Your task to perform on an android device: turn on data saver in the chrome app Image 0: 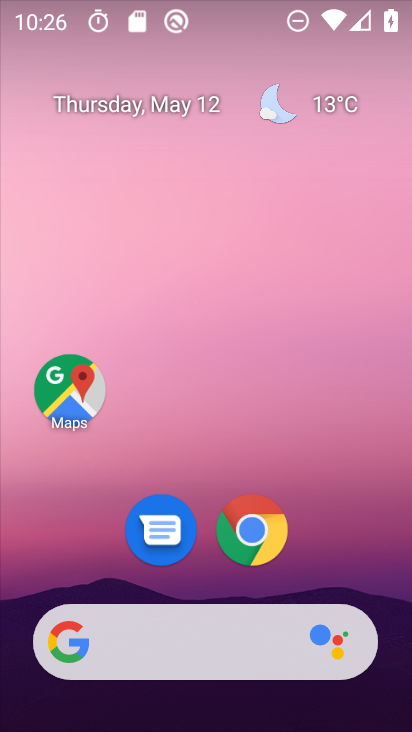
Step 0: click (274, 536)
Your task to perform on an android device: turn on data saver in the chrome app Image 1: 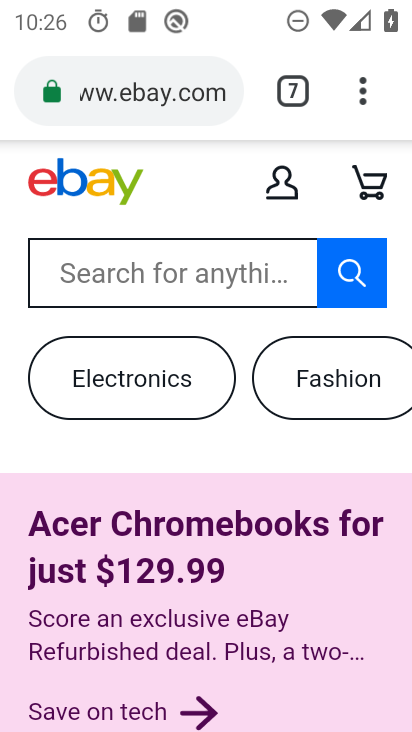
Step 1: click (356, 83)
Your task to perform on an android device: turn on data saver in the chrome app Image 2: 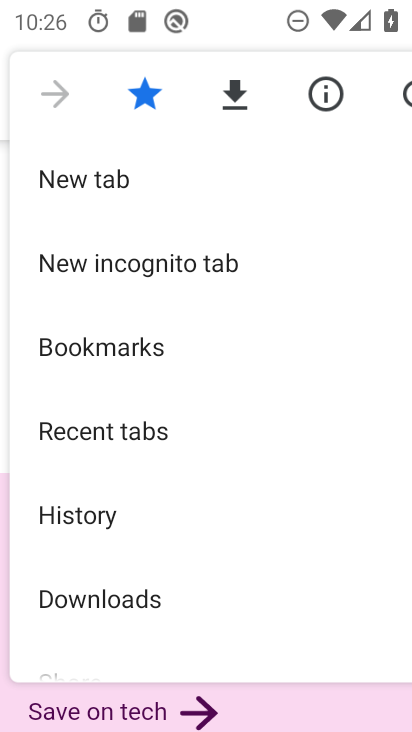
Step 2: drag from (278, 536) to (324, 178)
Your task to perform on an android device: turn on data saver in the chrome app Image 3: 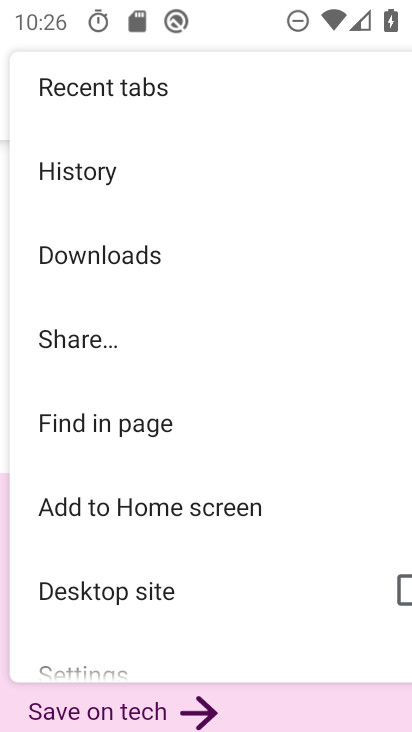
Step 3: drag from (239, 567) to (294, 160)
Your task to perform on an android device: turn on data saver in the chrome app Image 4: 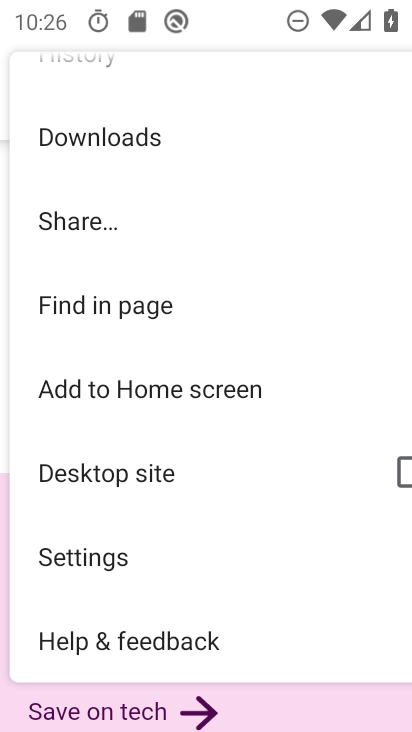
Step 4: click (143, 553)
Your task to perform on an android device: turn on data saver in the chrome app Image 5: 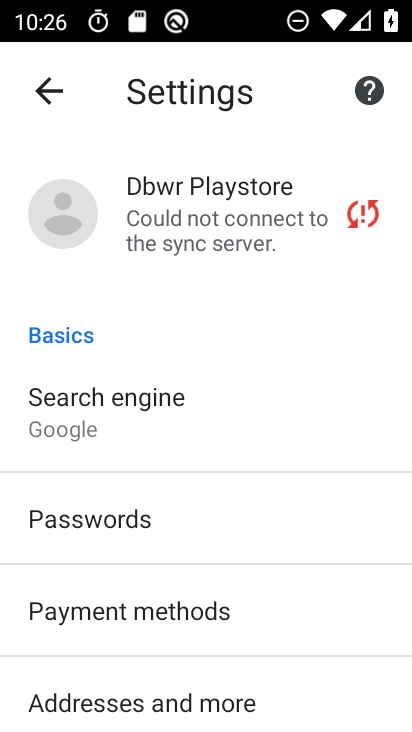
Step 5: drag from (247, 600) to (251, 268)
Your task to perform on an android device: turn on data saver in the chrome app Image 6: 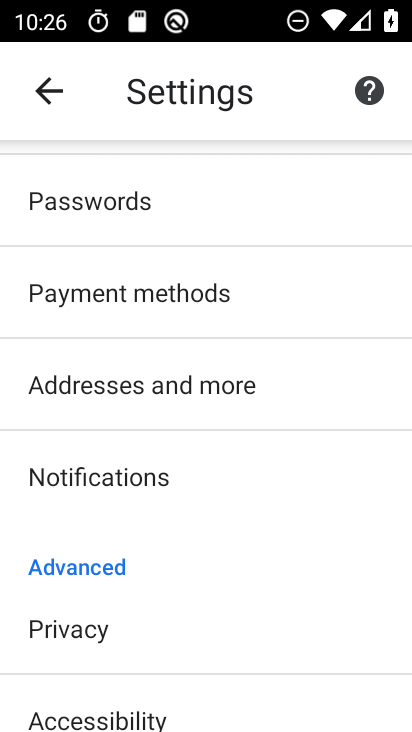
Step 6: drag from (216, 529) to (256, 164)
Your task to perform on an android device: turn on data saver in the chrome app Image 7: 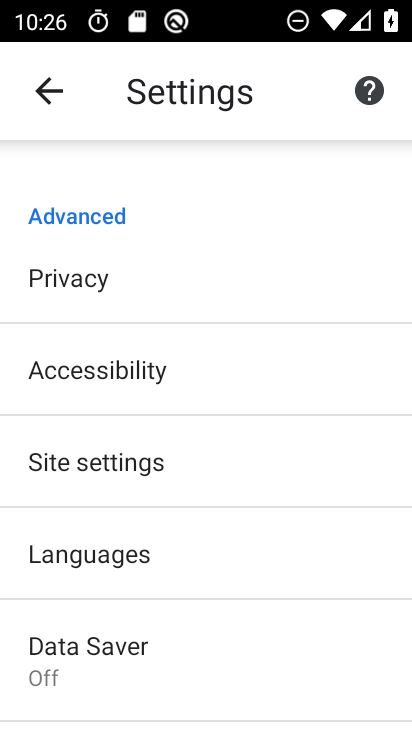
Step 7: click (123, 654)
Your task to perform on an android device: turn on data saver in the chrome app Image 8: 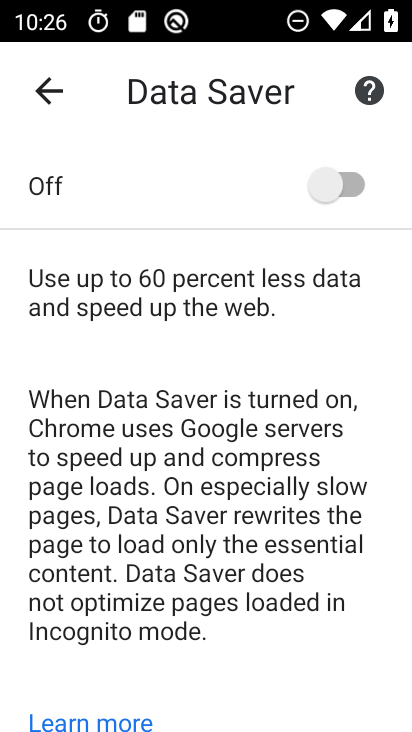
Step 8: click (339, 190)
Your task to perform on an android device: turn on data saver in the chrome app Image 9: 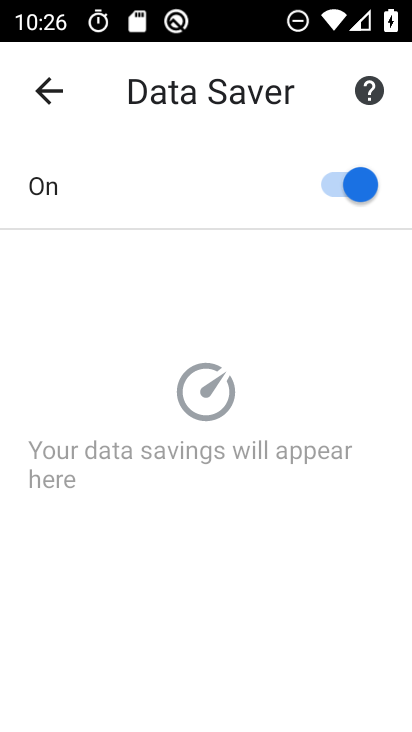
Step 9: task complete